Your task to perform on an android device: check storage Image 0: 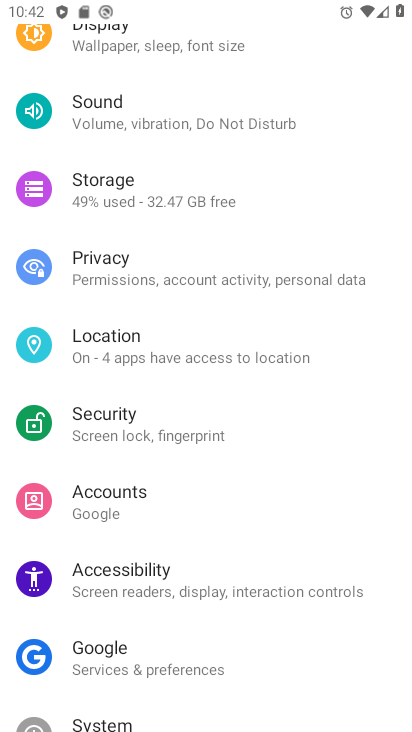
Step 0: press home button
Your task to perform on an android device: check storage Image 1: 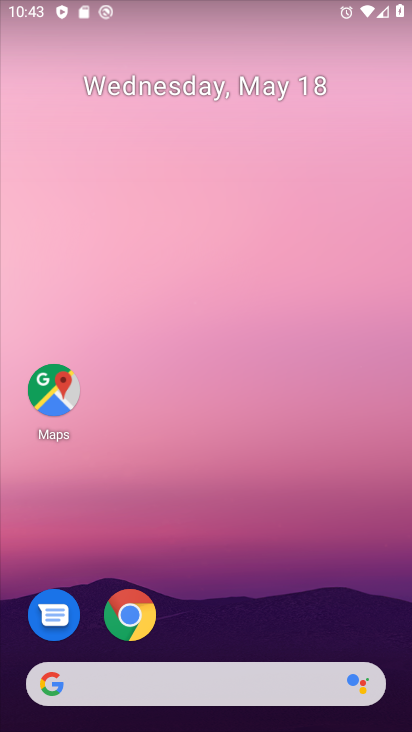
Step 1: drag from (224, 663) to (221, 295)
Your task to perform on an android device: check storage Image 2: 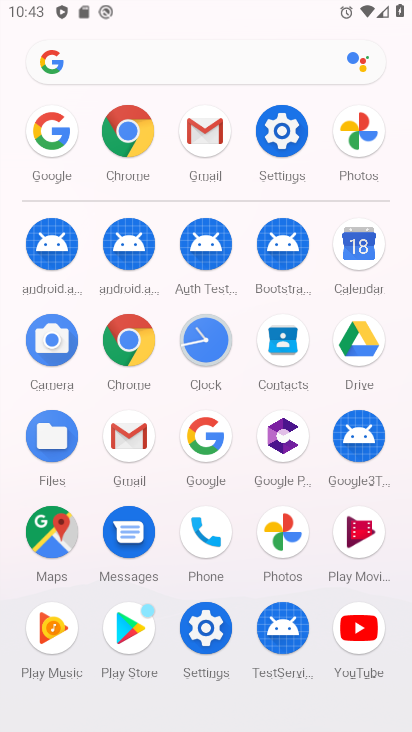
Step 2: click (282, 150)
Your task to perform on an android device: check storage Image 3: 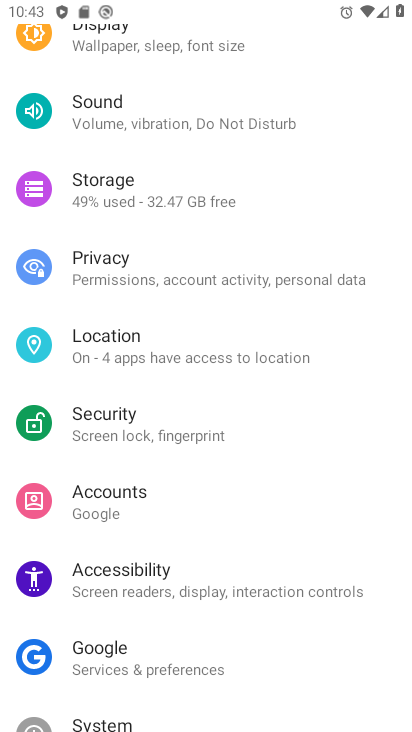
Step 3: click (158, 181)
Your task to perform on an android device: check storage Image 4: 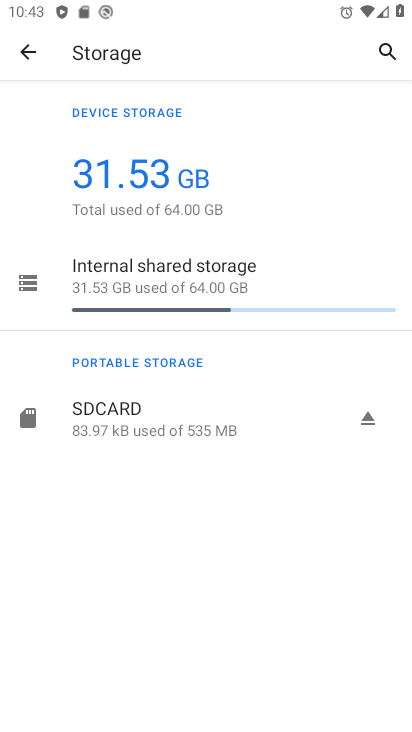
Step 4: task complete